Your task to perform on an android device: turn off priority inbox in the gmail app Image 0: 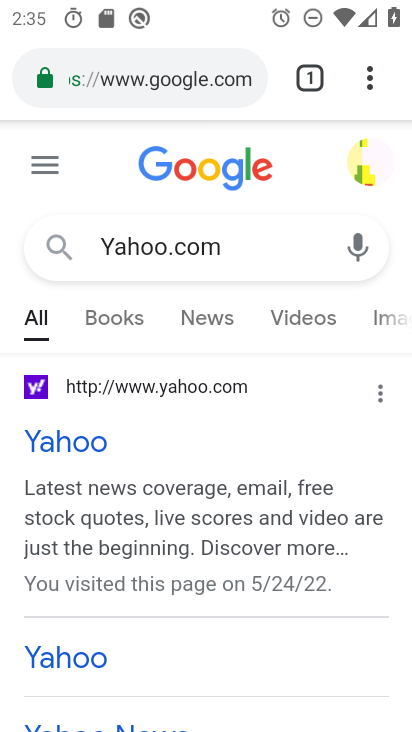
Step 0: press home button
Your task to perform on an android device: turn off priority inbox in the gmail app Image 1: 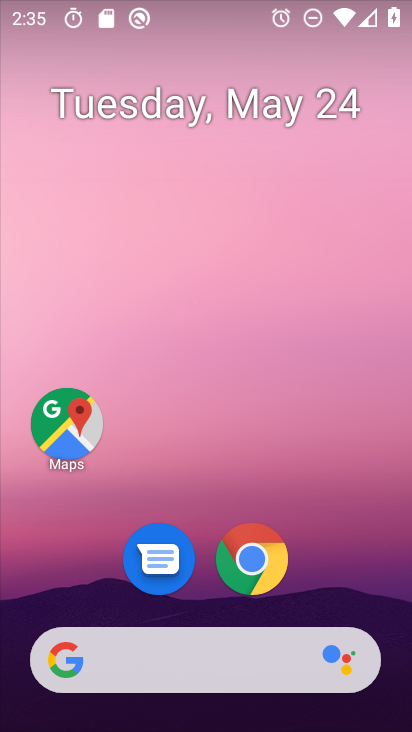
Step 1: drag from (405, 367) to (119, 288)
Your task to perform on an android device: turn off priority inbox in the gmail app Image 2: 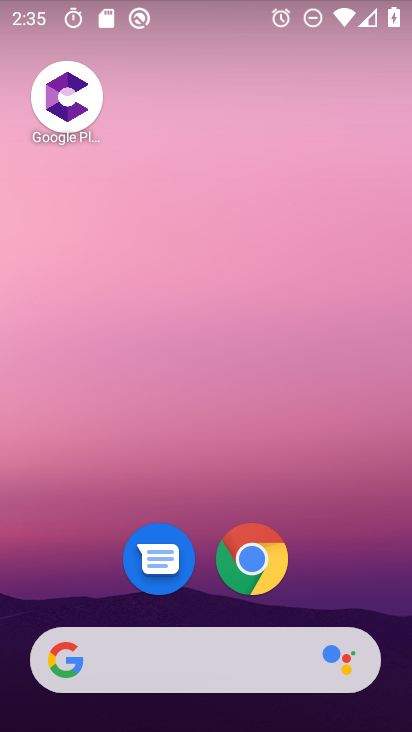
Step 2: drag from (0, 272) to (397, 311)
Your task to perform on an android device: turn off priority inbox in the gmail app Image 3: 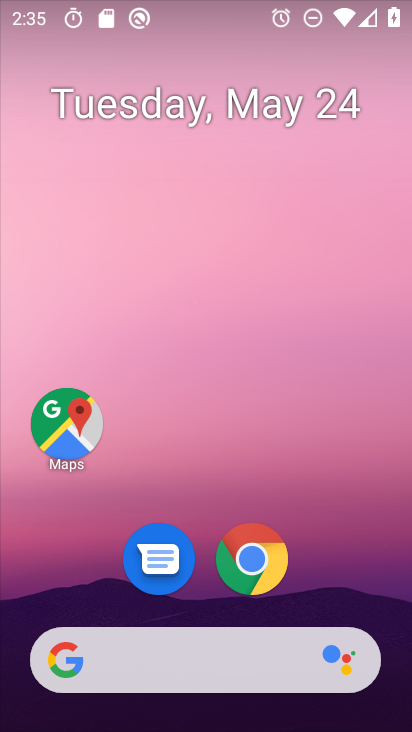
Step 3: drag from (400, 714) to (351, 212)
Your task to perform on an android device: turn off priority inbox in the gmail app Image 4: 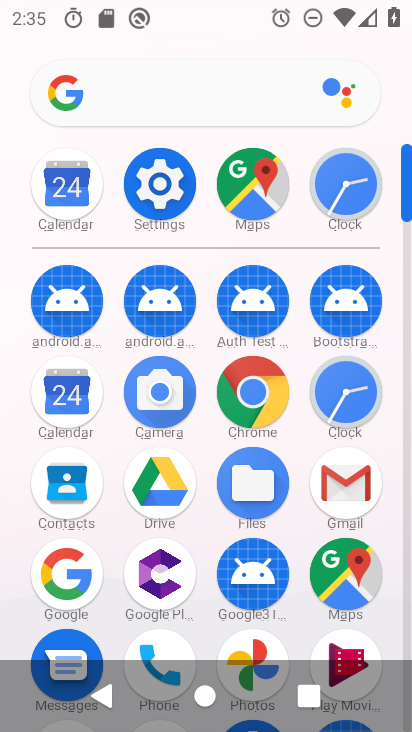
Step 4: click (364, 469)
Your task to perform on an android device: turn off priority inbox in the gmail app Image 5: 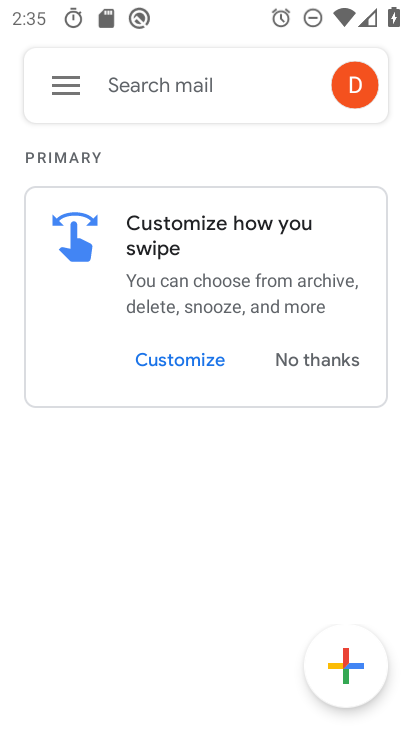
Step 5: click (63, 79)
Your task to perform on an android device: turn off priority inbox in the gmail app Image 6: 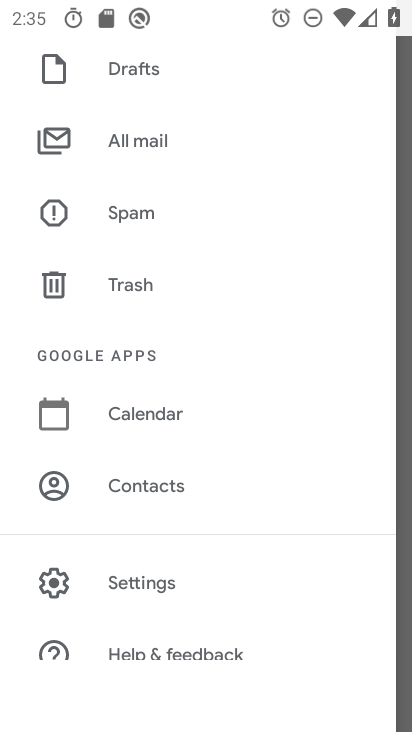
Step 6: click (124, 573)
Your task to perform on an android device: turn off priority inbox in the gmail app Image 7: 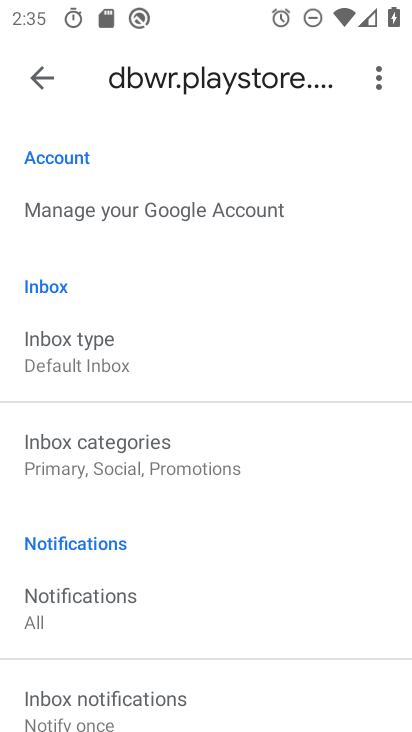
Step 7: click (42, 83)
Your task to perform on an android device: turn off priority inbox in the gmail app Image 8: 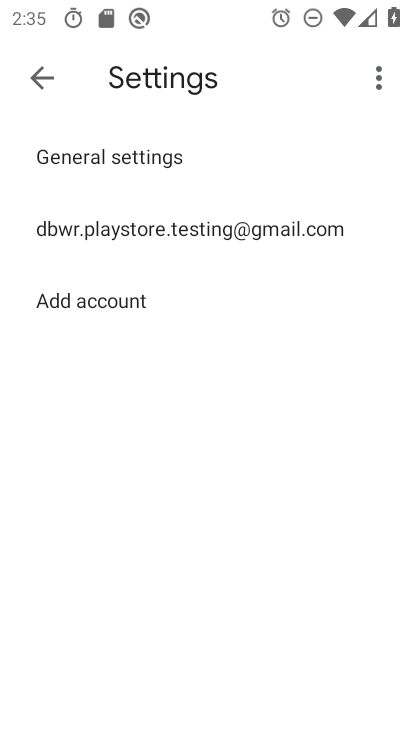
Step 8: click (79, 231)
Your task to perform on an android device: turn off priority inbox in the gmail app Image 9: 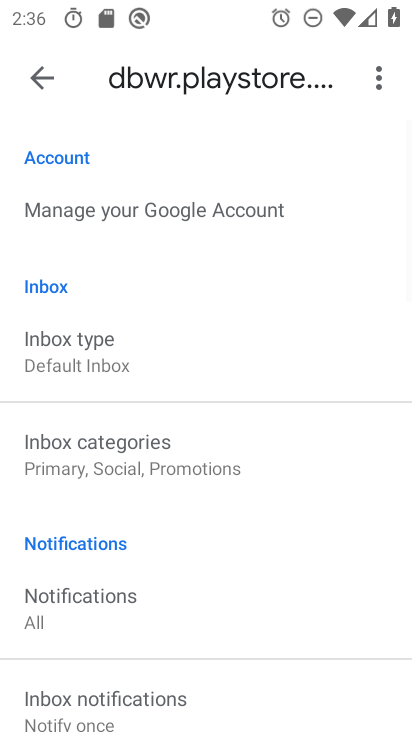
Step 9: click (64, 368)
Your task to perform on an android device: turn off priority inbox in the gmail app Image 10: 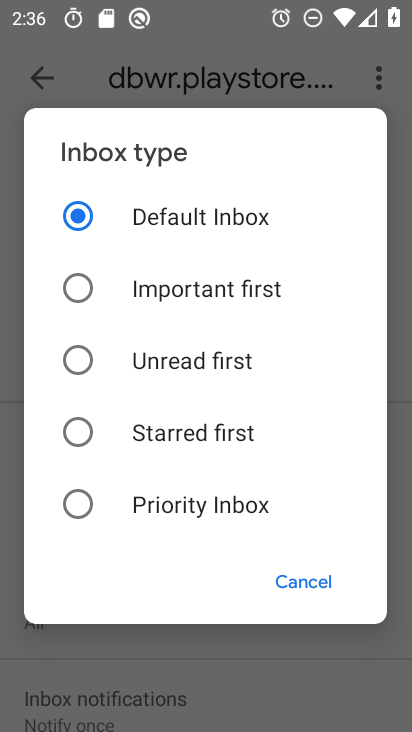
Step 10: task complete